Your task to perform on an android device: Open Reddit.com Image 0: 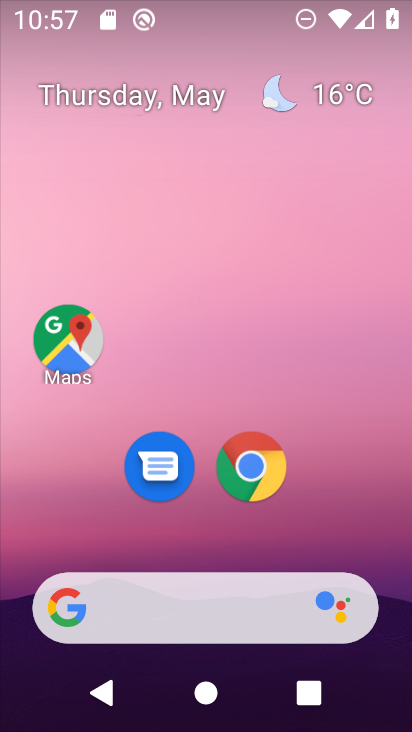
Step 0: click (242, 464)
Your task to perform on an android device: Open Reddit.com Image 1: 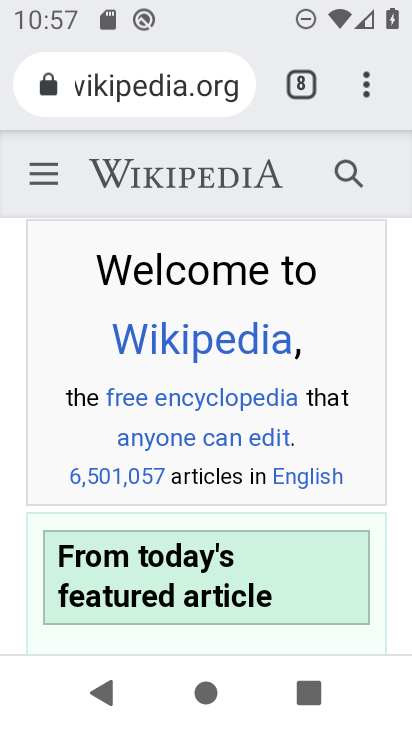
Step 1: click (351, 84)
Your task to perform on an android device: Open Reddit.com Image 2: 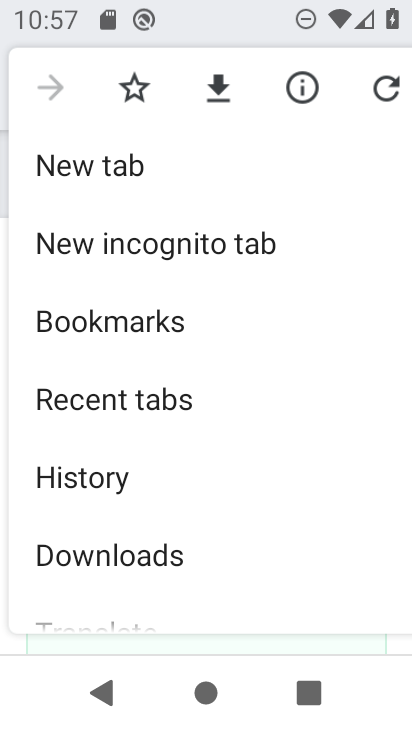
Step 2: click (99, 161)
Your task to perform on an android device: Open Reddit.com Image 3: 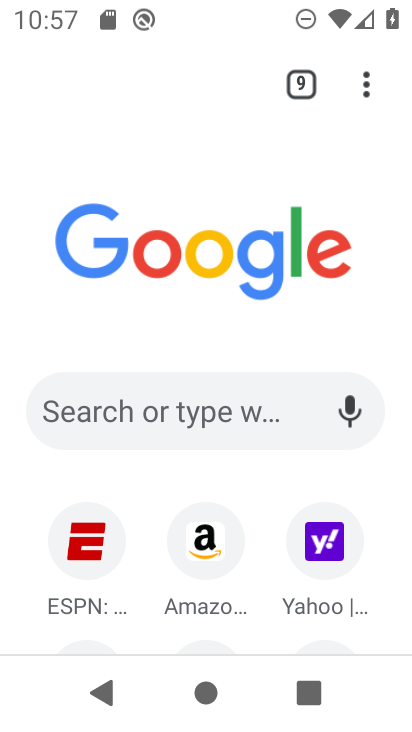
Step 3: click (195, 408)
Your task to perform on an android device: Open Reddit.com Image 4: 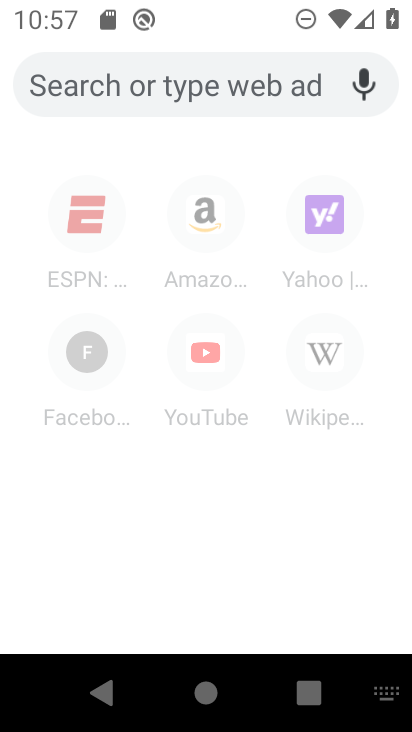
Step 4: type "Reddit.com"
Your task to perform on an android device: Open Reddit.com Image 5: 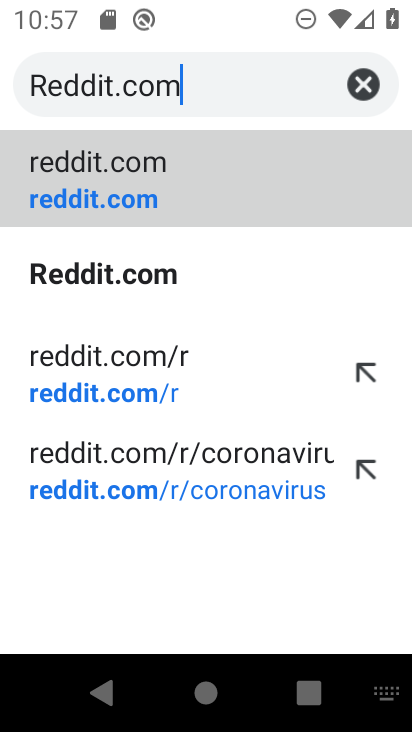
Step 5: click (174, 171)
Your task to perform on an android device: Open Reddit.com Image 6: 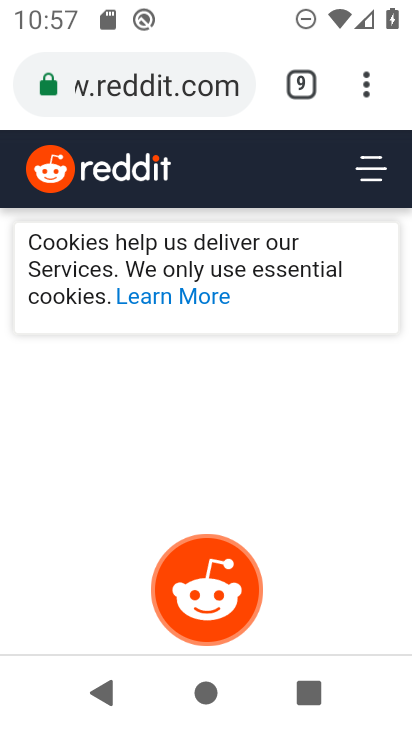
Step 6: task complete